Your task to perform on an android device: turn off translation in the chrome app Image 0: 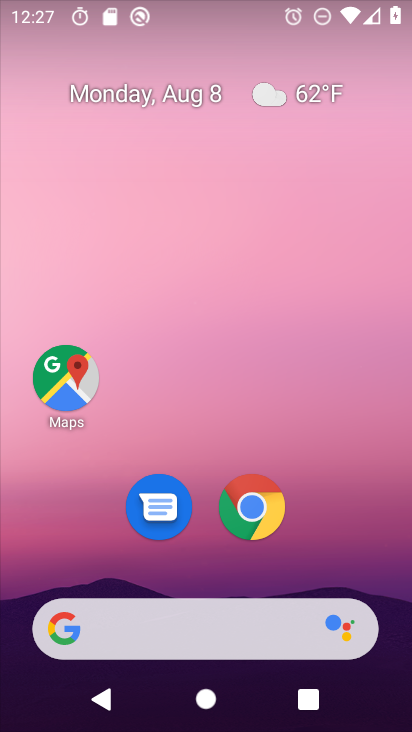
Step 0: drag from (342, 543) to (355, 72)
Your task to perform on an android device: turn off translation in the chrome app Image 1: 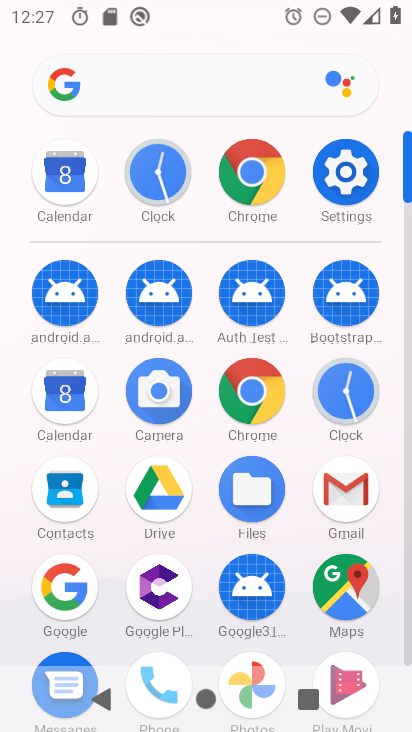
Step 1: click (248, 389)
Your task to perform on an android device: turn off translation in the chrome app Image 2: 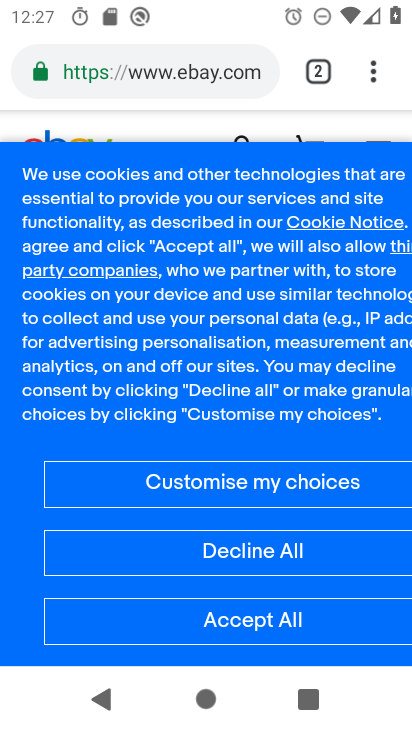
Step 2: drag from (370, 76) to (161, 502)
Your task to perform on an android device: turn off translation in the chrome app Image 3: 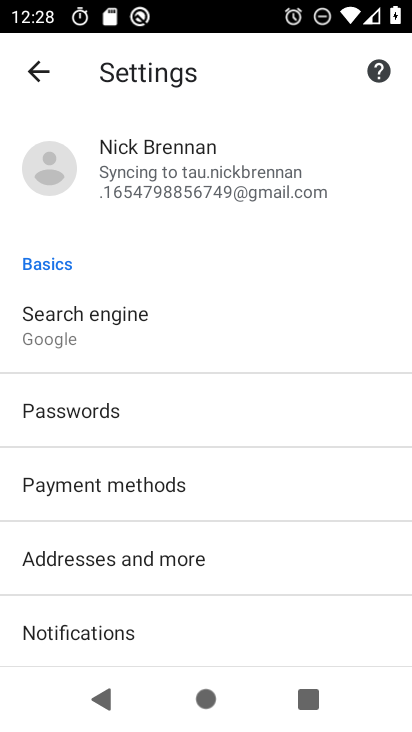
Step 3: drag from (214, 448) to (367, 20)
Your task to perform on an android device: turn off translation in the chrome app Image 4: 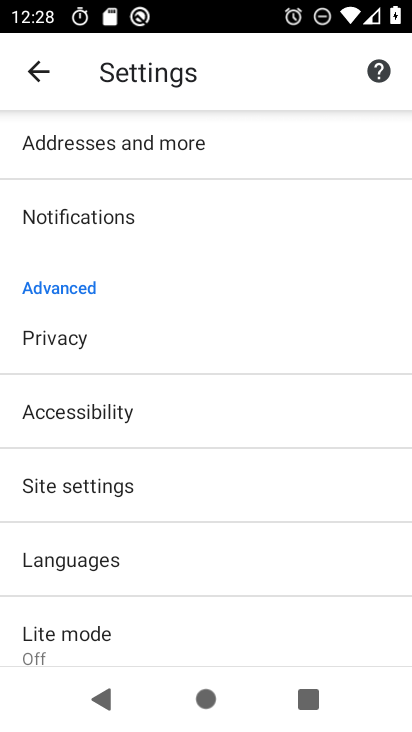
Step 4: click (76, 557)
Your task to perform on an android device: turn off translation in the chrome app Image 5: 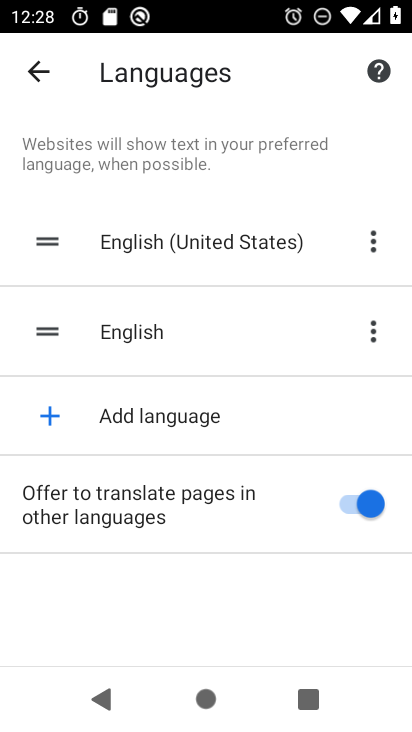
Step 5: click (367, 508)
Your task to perform on an android device: turn off translation in the chrome app Image 6: 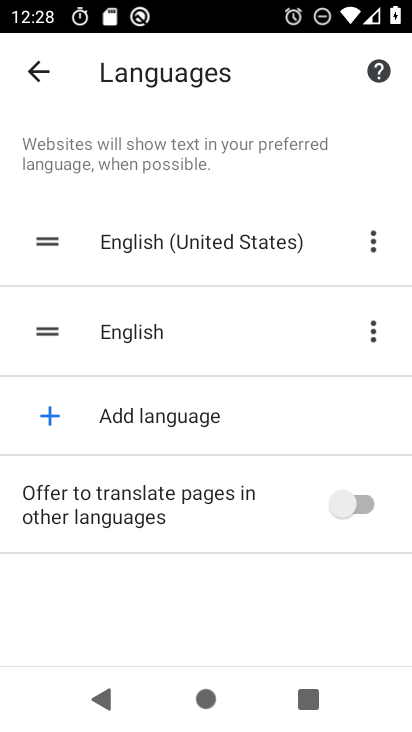
Step 6: task complete